Your task to perform on an android device: Open eBay Image 0: 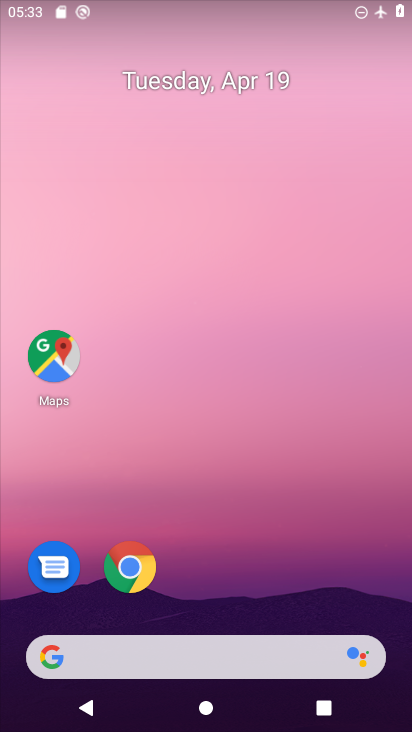
Step 0: drag from (209, 627) to (217, 6)
Your task to perform on an android device: Open eBay Image 1: 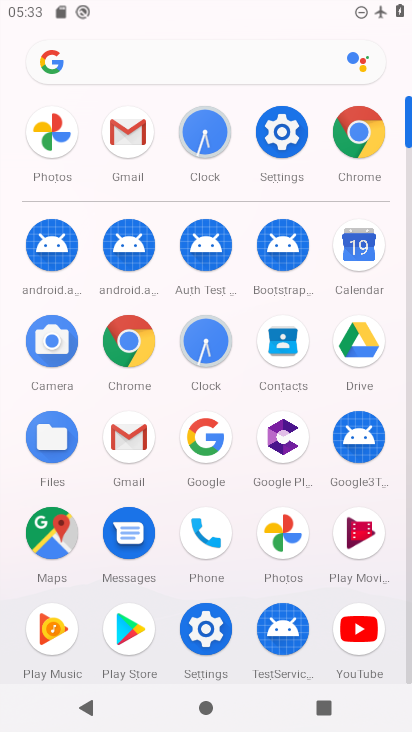
Step 1: click (125, 353)
Your task to perform on an android device: Open eBay Image 2: 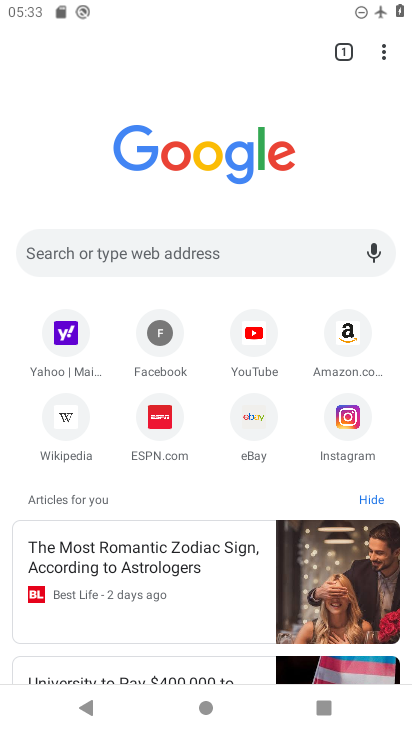
Step 2: click (289, 252)
Your task to perform on an android device: Open eBay Image 3: 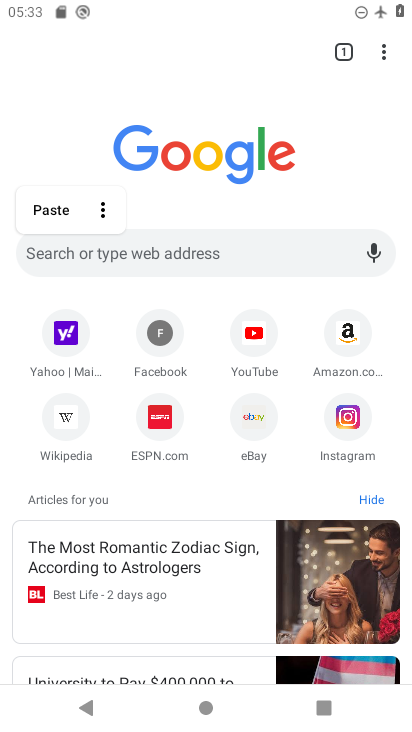
Step 3: type "ebay"
Your task to perform on an android device: Open eBay Image 4: 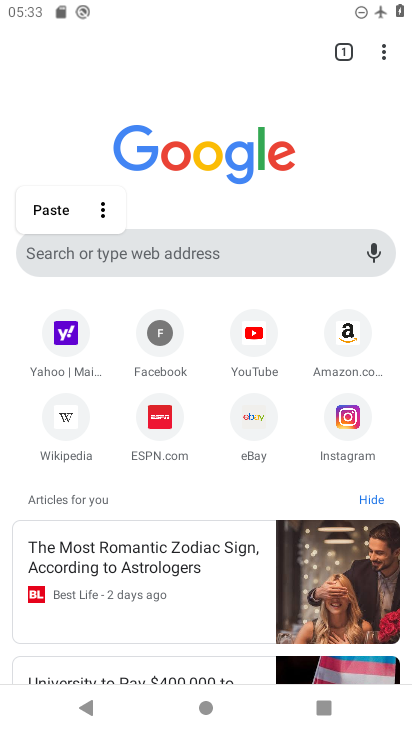
Step 4: click (90, 257)
Your task to perform on an android device: Open eBay Image 5: 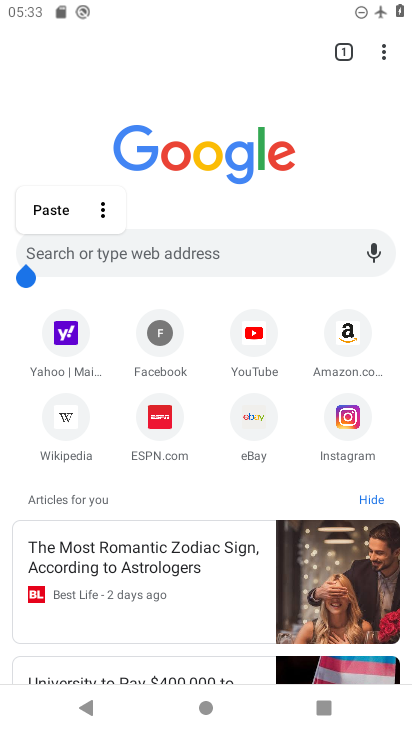
Step 5: click (201, 245)
Your task to perform on an android device: Open eBay Image 6: 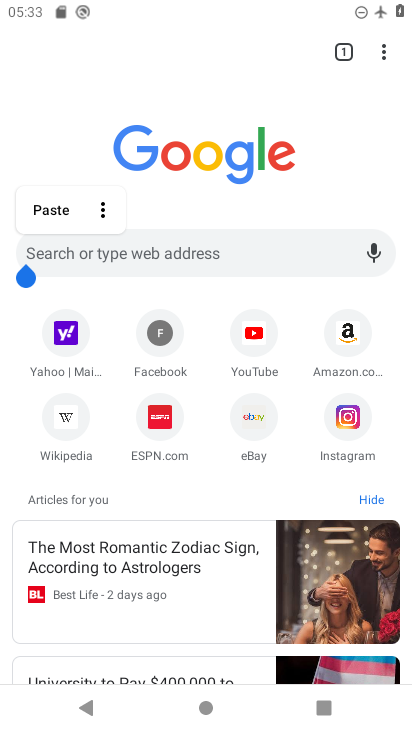
Step 6: click (282, 256)
Your task to perform on an android device: Open eBay Image 7: 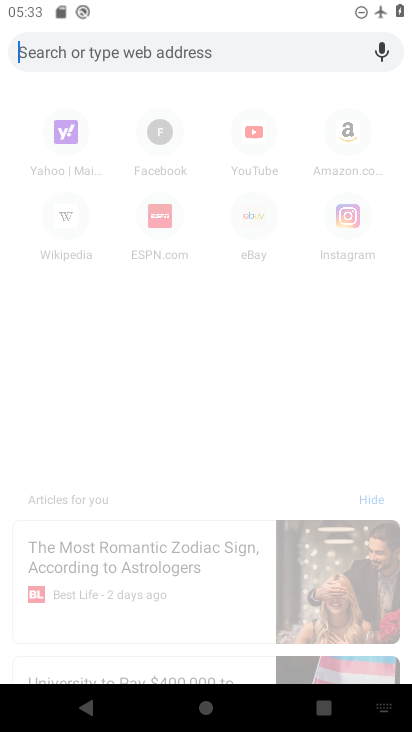
Step 7: type "ebay"
Your task to perform on an android device: Open eBay Image 8: 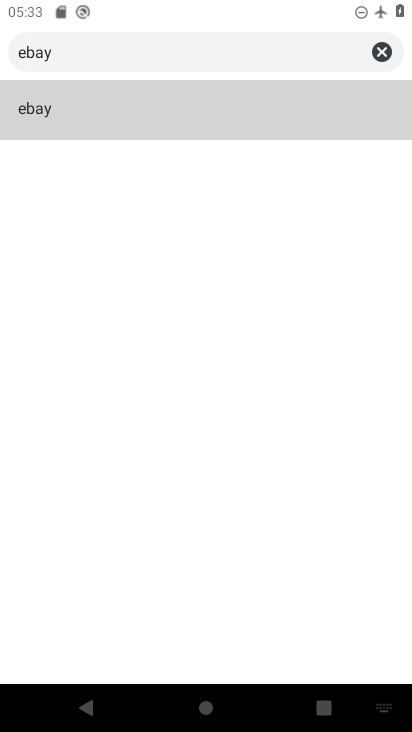
Step 8: click (155, 119)
Your task to perform on an android device: Open eBay Image 9: 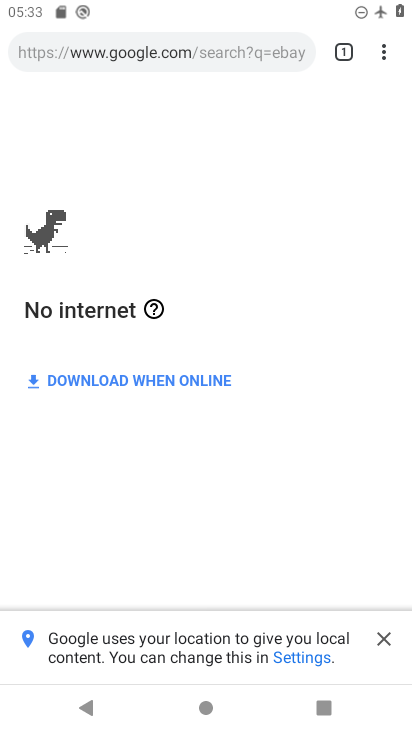
Step 9: task complete